Your task to perform on an android device: Show me recent news Image 0: 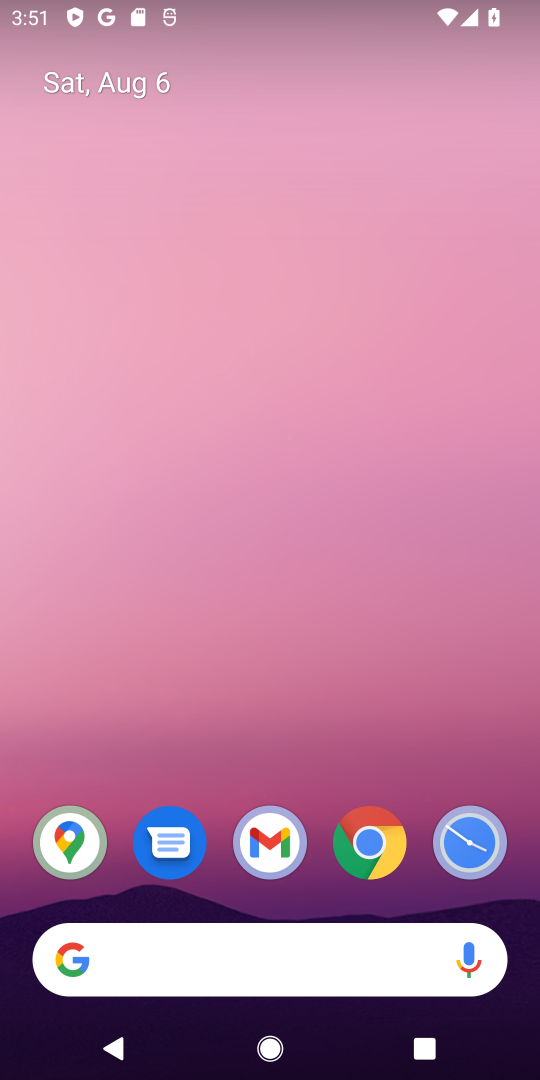
Step 0: drag from (75, 380) to (522, 331)
Your task to perform on an android device: Show me recent news Image 1: 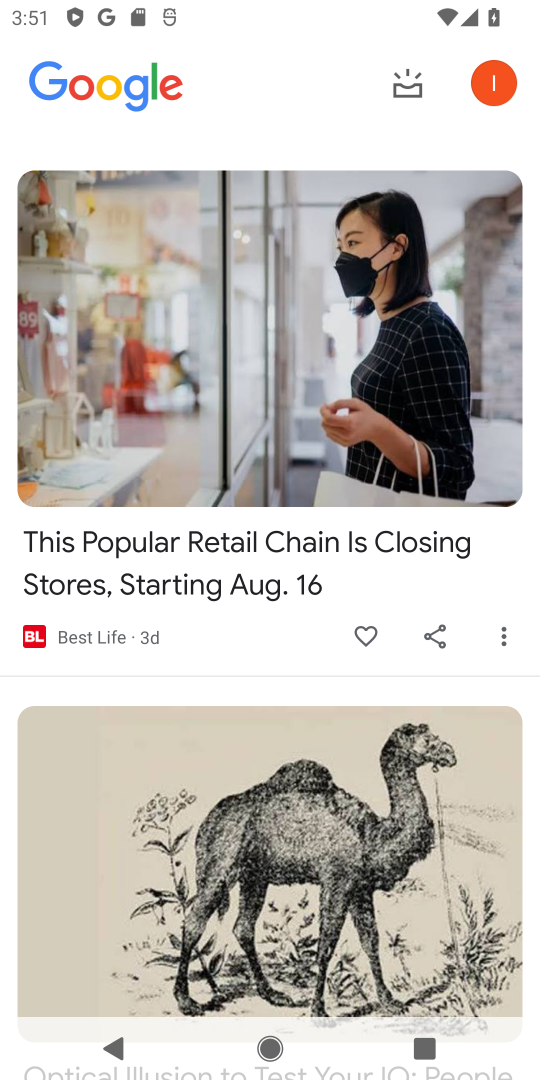
Step 1: task complete